Your task to perform on an android device: Go to Wikipedia Image 0: 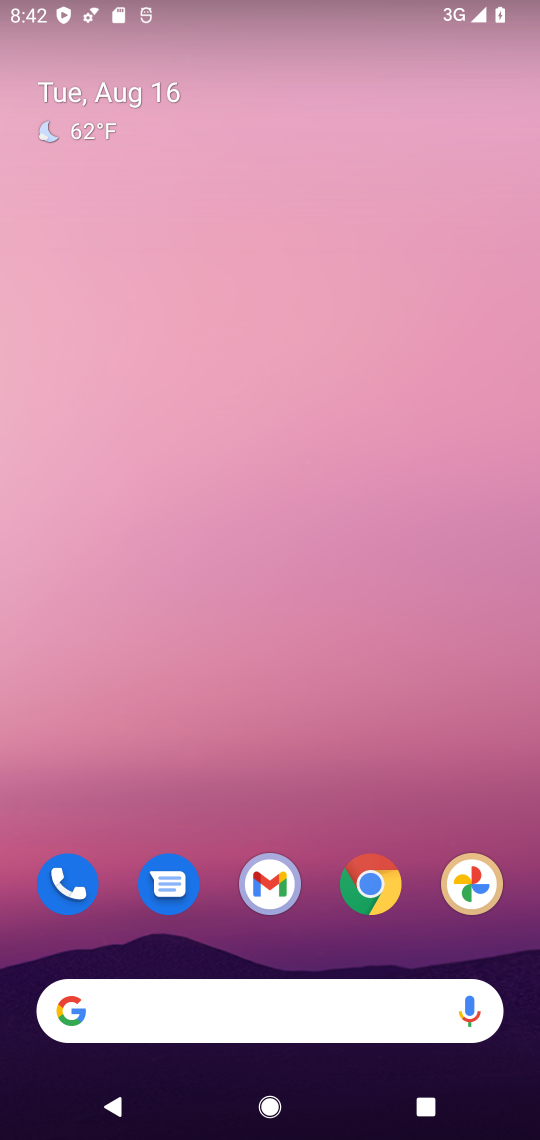
Step 0: click (371, 882)
Your task to perform on an android device: Go to Wikipedia Image 1: 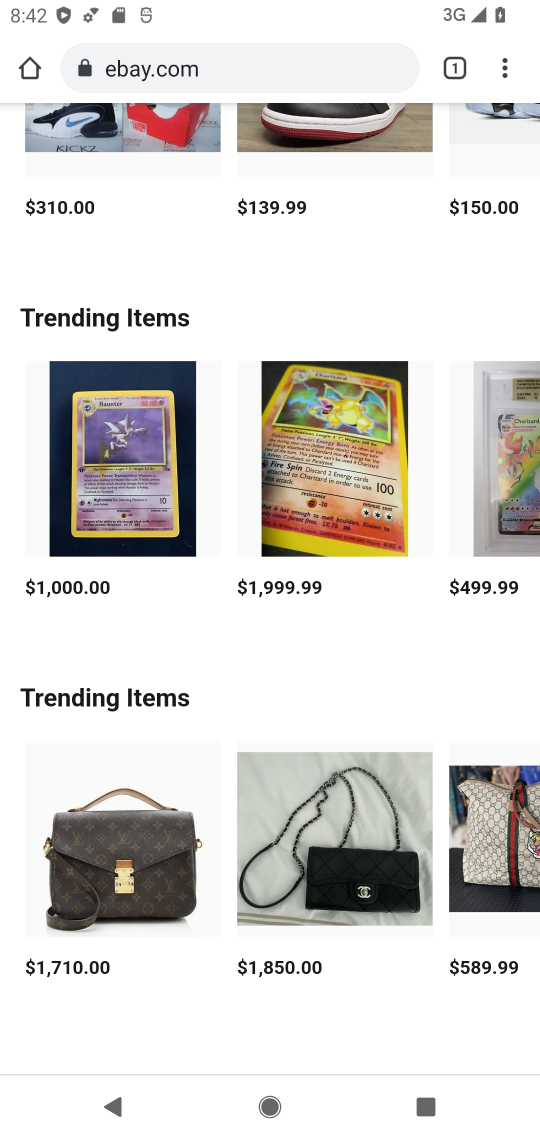
Step 1: click (259, 54)
Your task to perform on an android device: Go to Wikipedia Image 2: 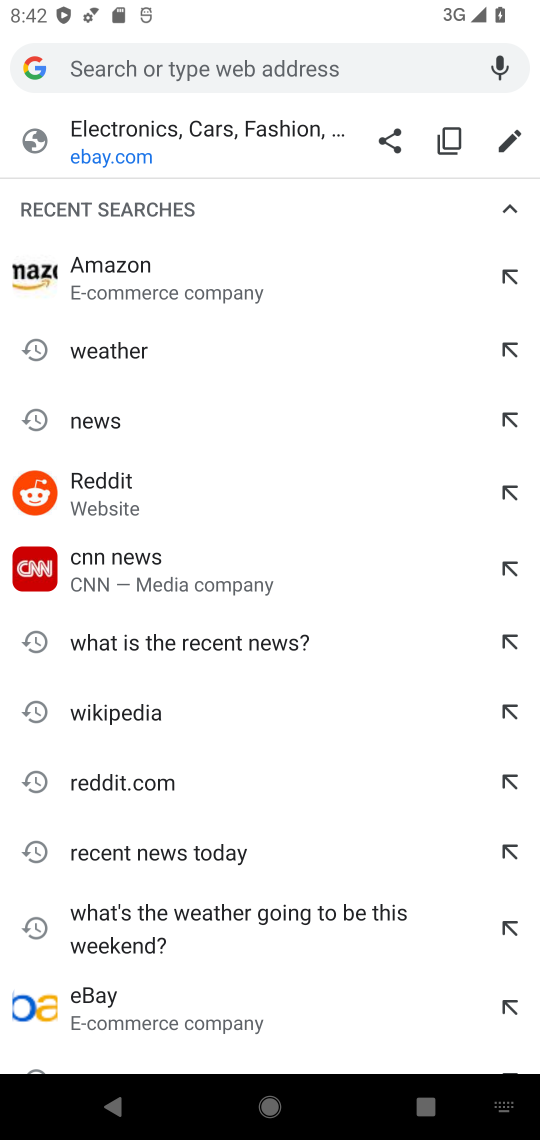
Step 2: type "wikipedia"
Your task to perform on an android device: Go to Wikipedia Image 3: 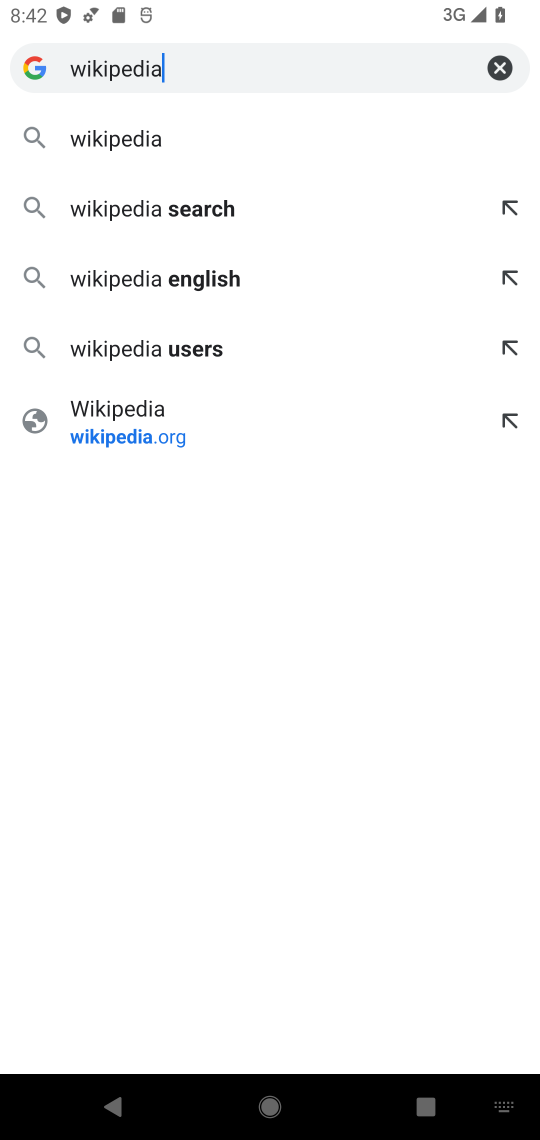
Step 3: click (104, 133)
Your task to perform on an android device: Go to Wikipedia Image 4: 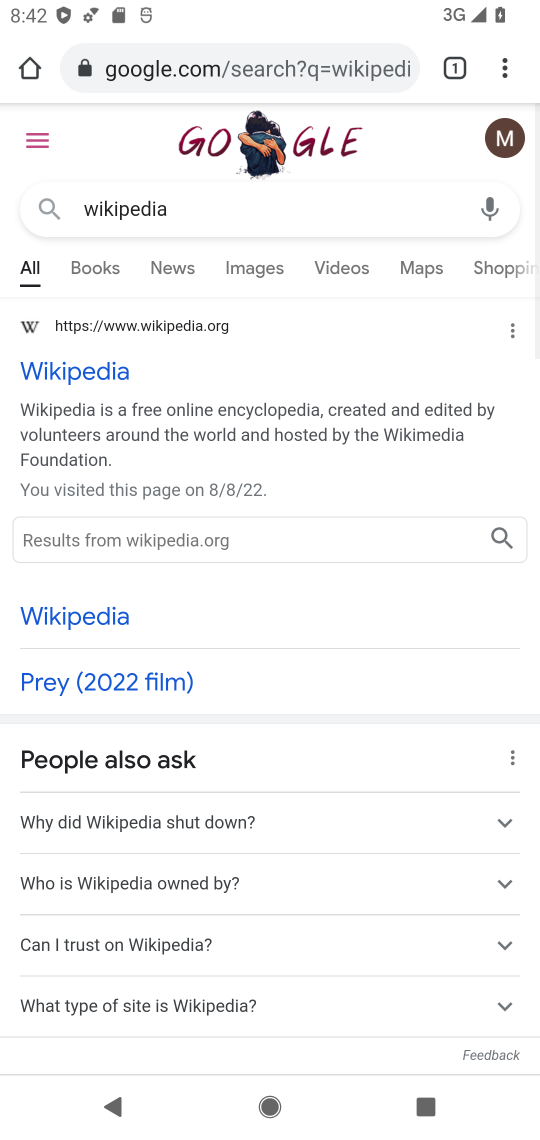
Step 4: click (83, 375)
Your task to perform on an android device: Go to Wikipedia Image 5: 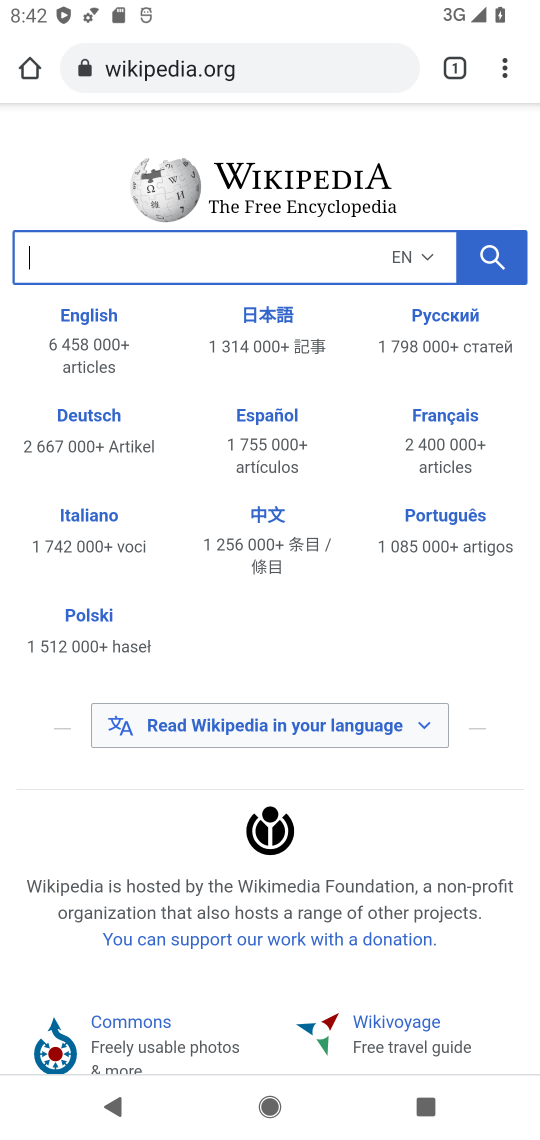
Step 5: task complete